Your task to perform on an android device: Go to network settings Image 0: 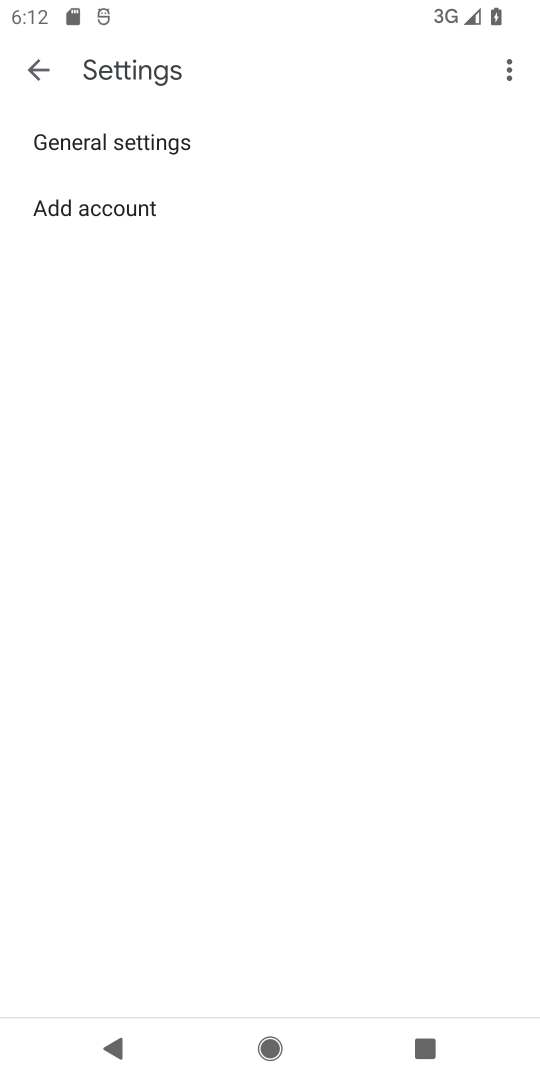
Step 0: press home button
Your task to perform on an android device: Go to network settings Image 1: 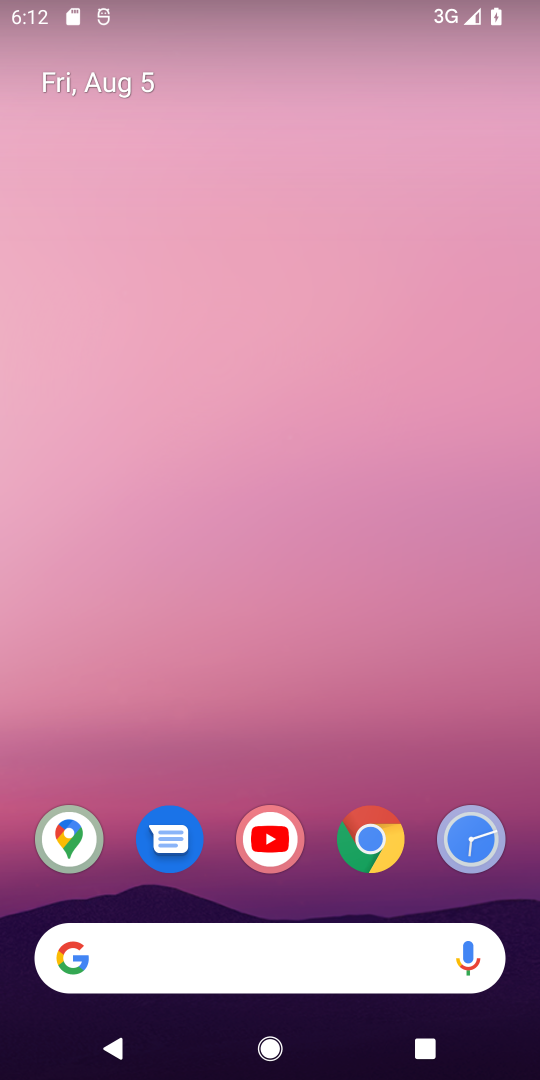
Step 1: drag from (266, 689) to (259, 297)
Your task to perform on an android device: Go to network settings Image 2: 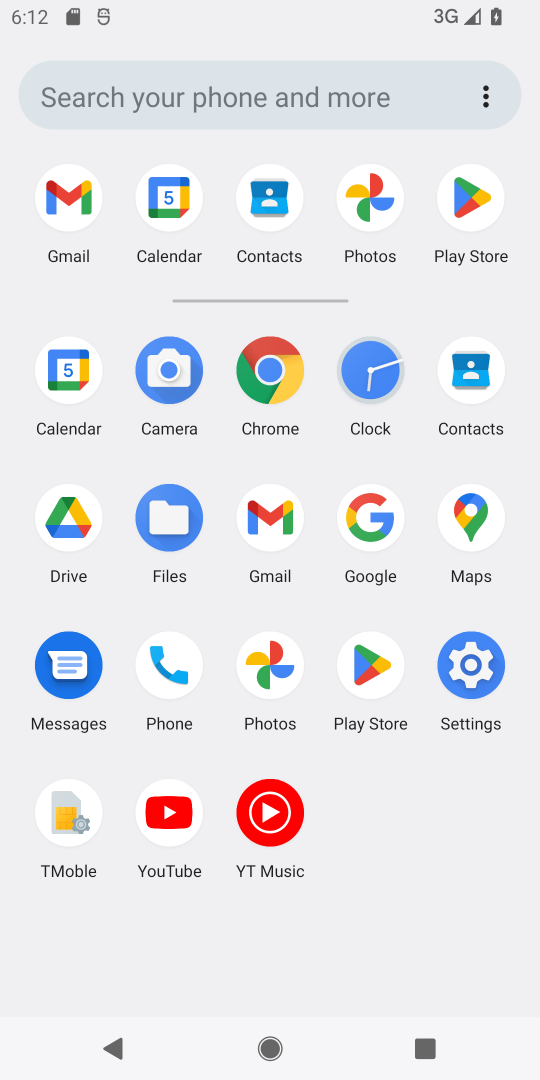
Step 2: click (491, 702)
Your task to perform on an android device: Go to network settings Image 3: 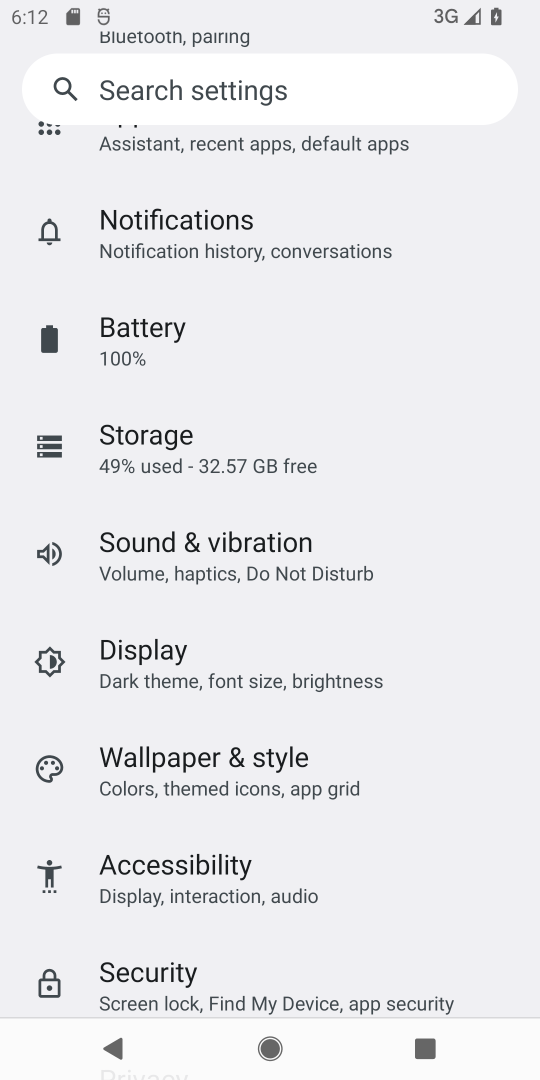
Step 3: drag from (277, 238) to (304, 936)
Your task to perform on an android device: Go to network settings Image 4: 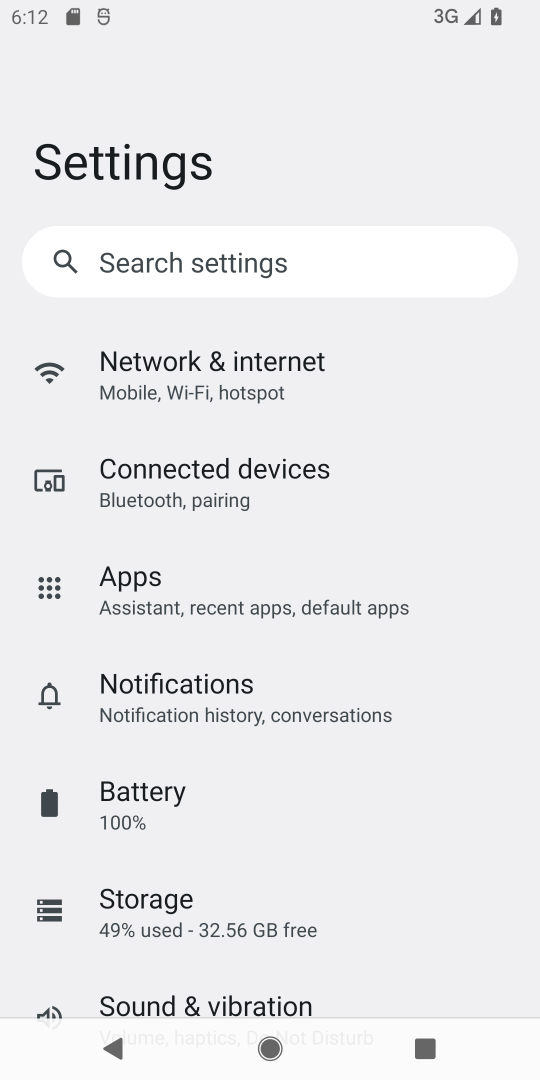
Step 4: click (220, 374)
Your task to perform on an android device: Go to network settings Image 5: 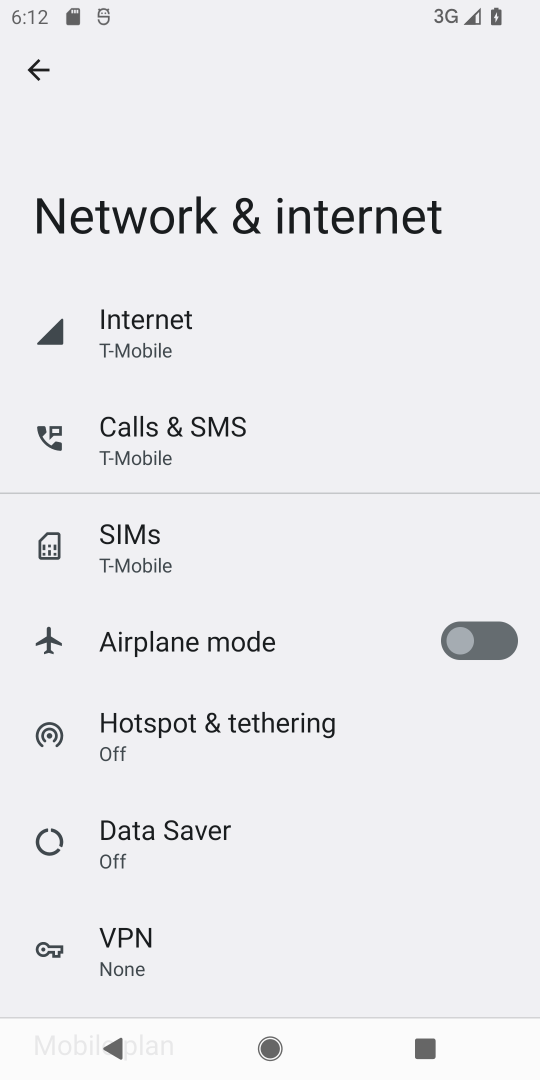
Step 5: task complete